Your task to perform on an android device: Go to eBay Image 0: 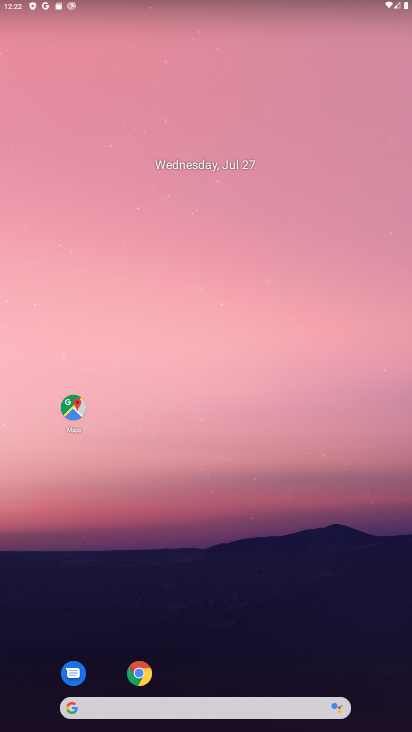
Step 0: click (138, 707)
Your task to perform on an android device: Go to eBay Image 1: 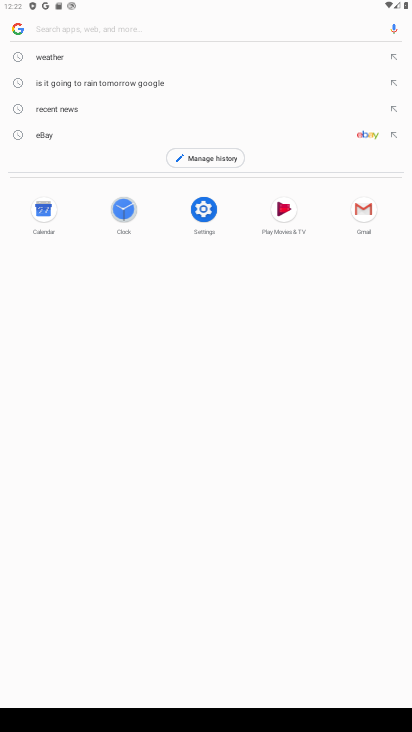
Step 1: click (44, 142)
Your task to perform on an android device: Go to eBay Image 2: 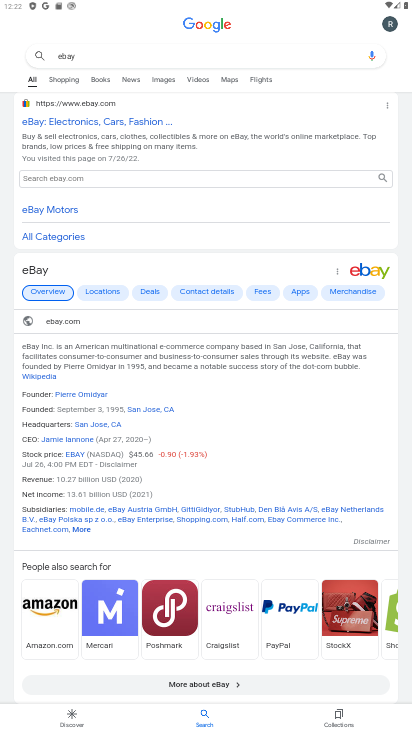
Step 2: click (42, 132)
Your task to perform on an android device: Go to eBay Image 3: 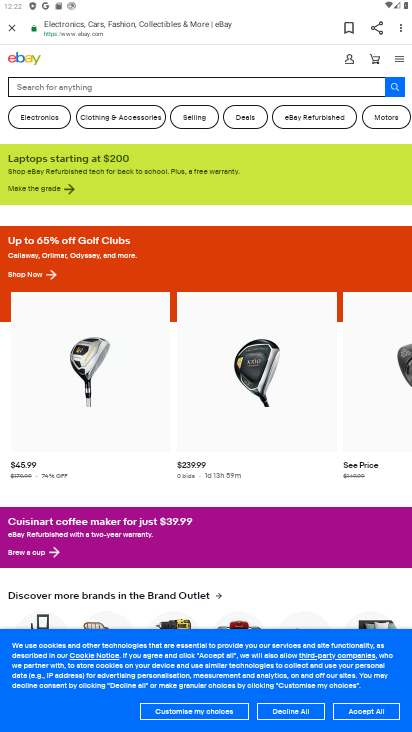
Step 3: task complete